Your task to perform on an android device: change keyboard looks Image 0: 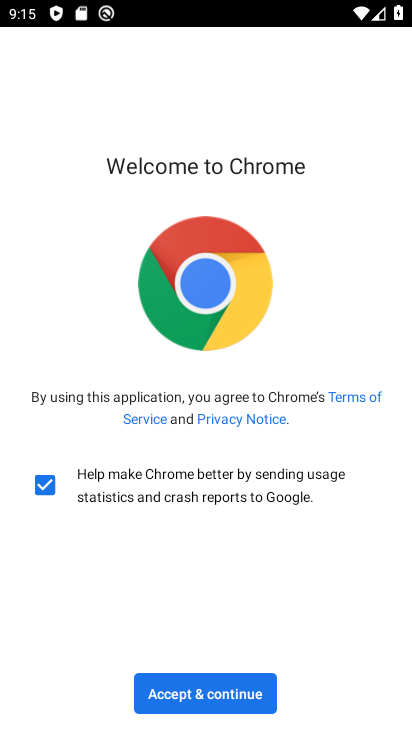
Step 0: press home button
Your task to perform on an android device: change keyboard looks Image 1: 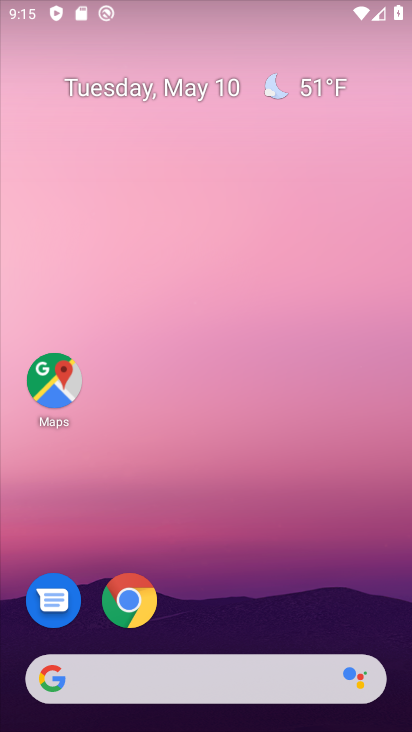
Step 1: drag from (259, 570) to (262, 96)
Your task to perform on an android device: change keyboard looks Image 2: 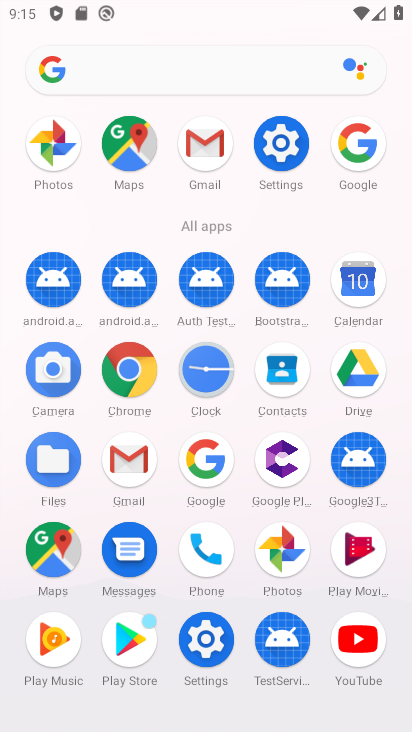
Step 2: click (272, 137)
Your task to perform on an android device: change keyboard looks Image 3: 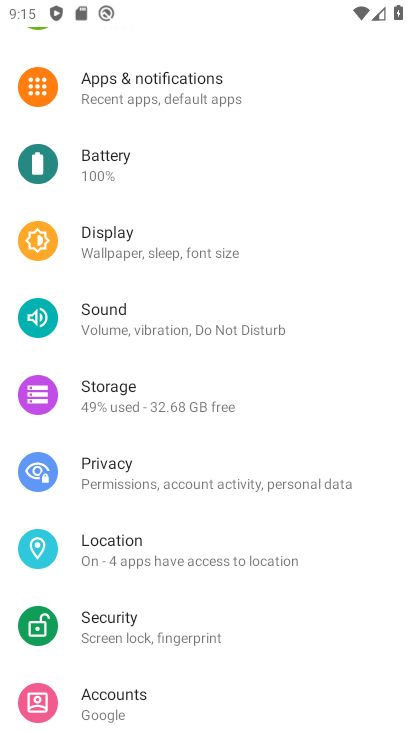
Step 3: drag from (270, 629) to (285, 135)
Your task to perform on an android device: change keyboard looks Image 4: 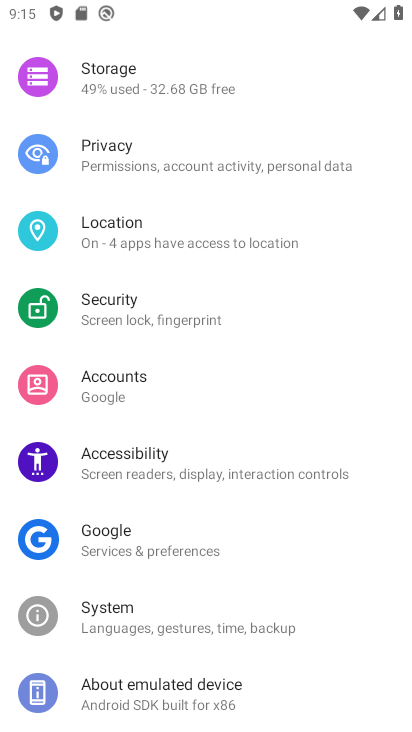
Step 4: drag from (257, 648) to (256, 350)
Your task to perform on an android device: change keyboard looks Image 5: 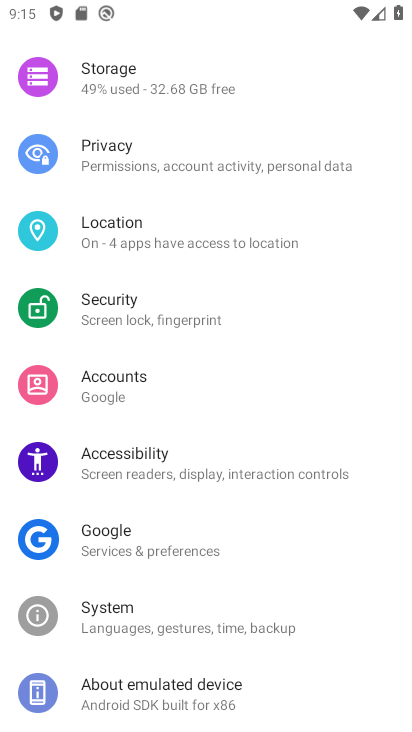
Step 5: click (240, 634)
Your task to perform on an android device: change keyboard looks Image 6: 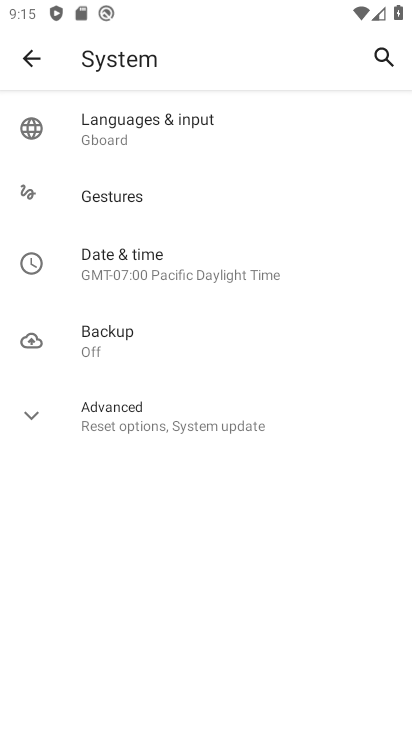
Step 6: click (169, 125)
Your task to perform on an android device: change keyboard looks Image 7: 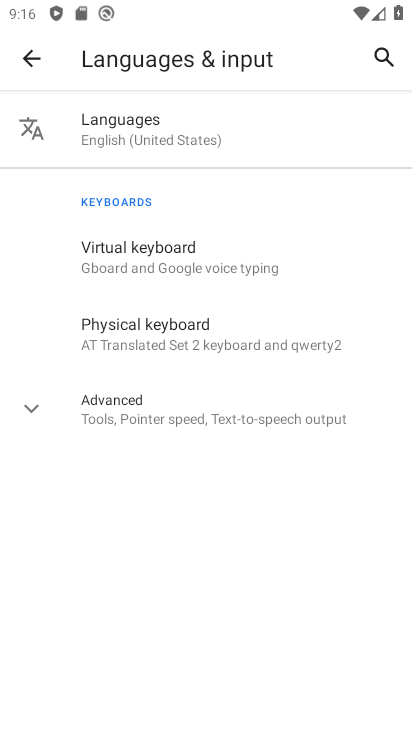
Step 7: click (215, 251)
Your task to perform on an android device: change keyboard looks Image 8: 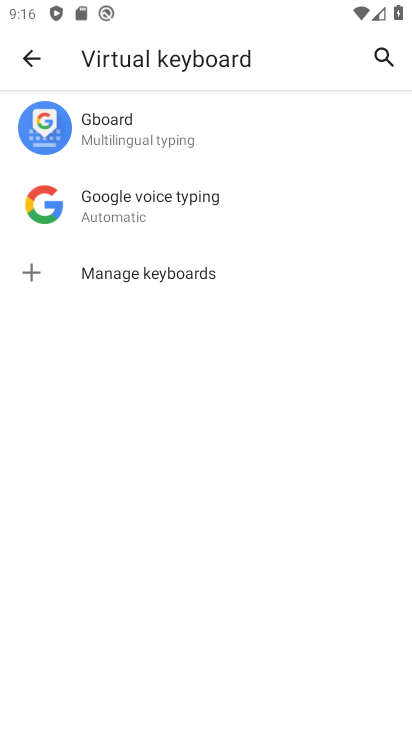
Step 8: click (167, 217)
Your task to perform on an android device: change keyboard looks Image 9: 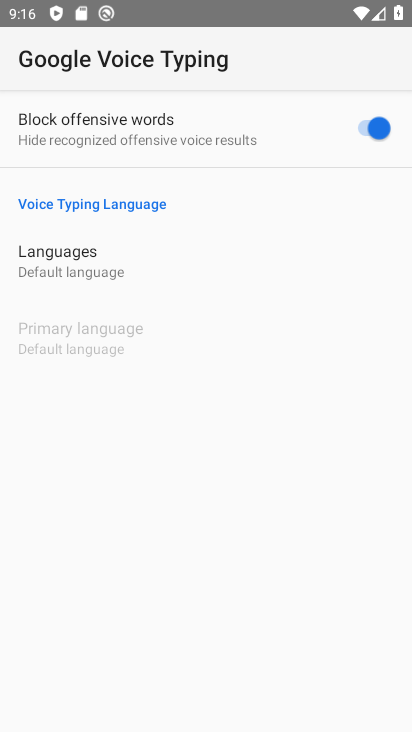
Step 9: press back button
Your task to perform on an android device: change keyboard looks Image 10: 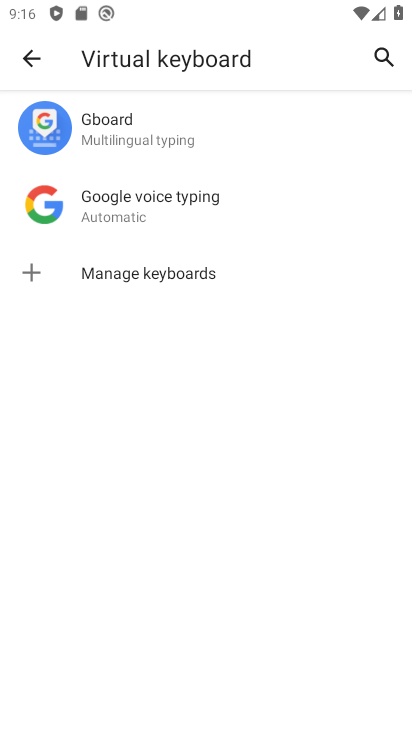
Step 10: click (181, 131)
Your task to perform on an android device: change keyboard looks Image 11: 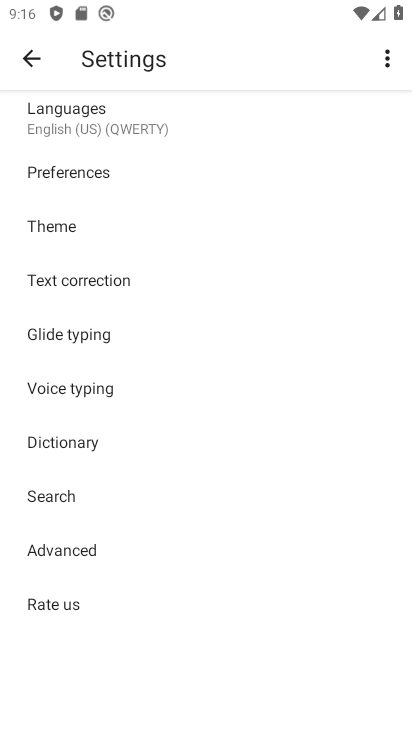
Step 11: click (55, 228)
Your task to perform on an android device: change keyboard looks Image 12: 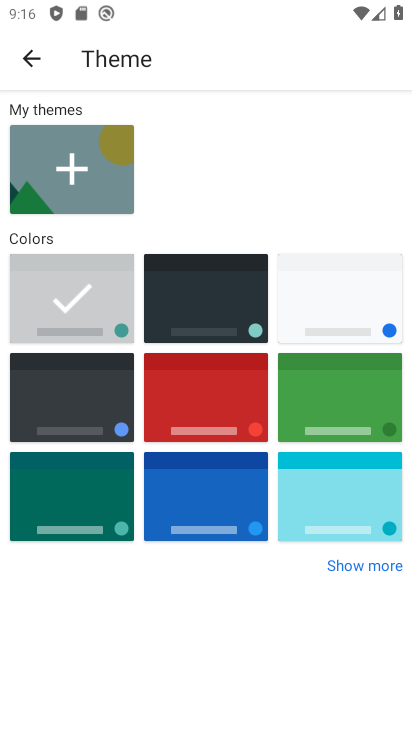
Step 12: click (359, 419)
Your task to perform on an android device: change keyboard looks Image 13: 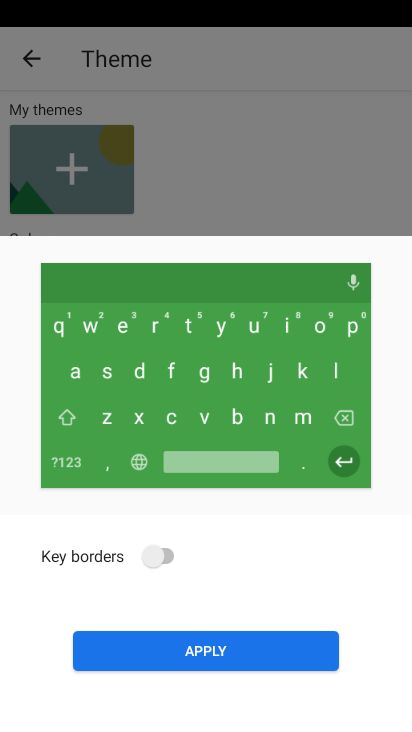
Step 13: click (164, 549)
Your task to perform on an android device: change keyboard looks Image 14: 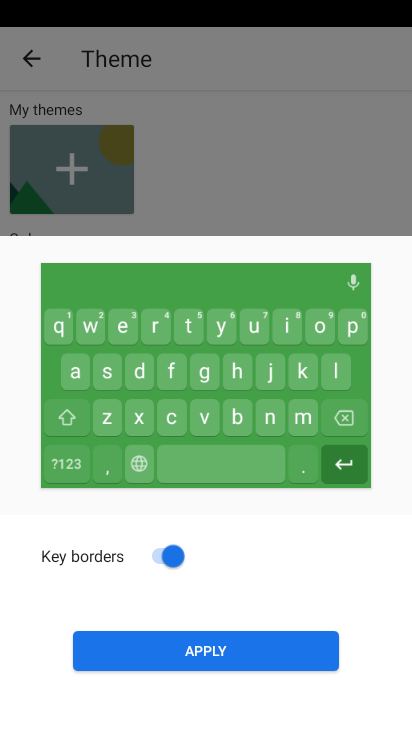
Step 14: click (246, 649)
Your task to perform on an android device: change keyboard looks Image 15: 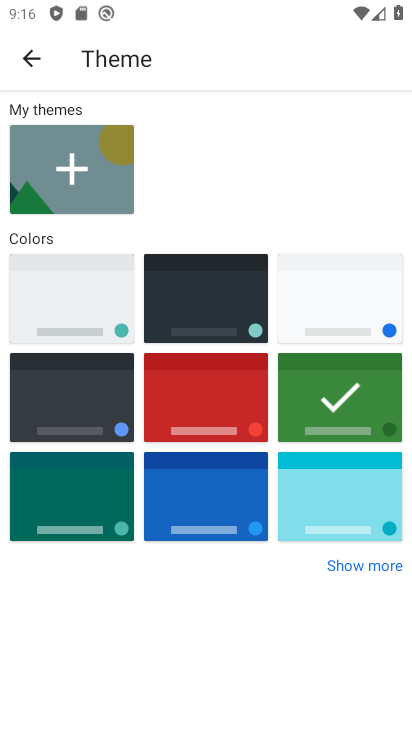
Step 15: task complete